Your task to perform on an android device: turn off smart reply in the gmail app Image 0: 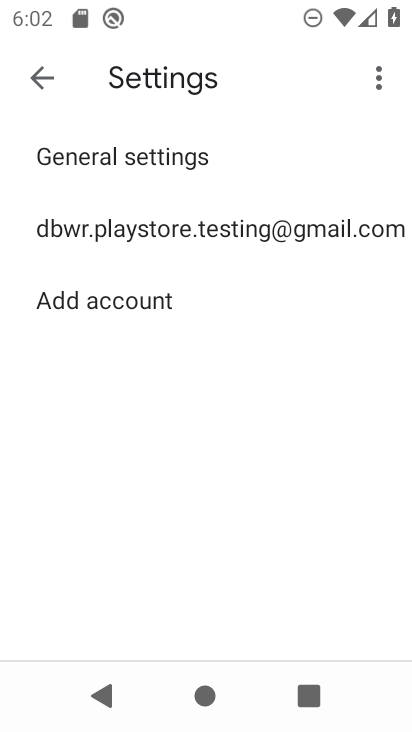
Step 0: press home button
Your task to perform on an android device: turn off smart reply in the gmail app Image 1: 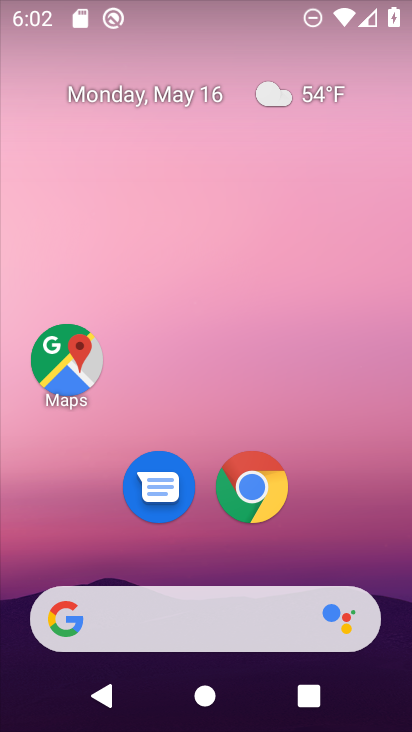
Step 1: drag from (224, 584) to (224, 313)
Your task to perform on an android device: turn off smart reply in the gmail app Image 2: 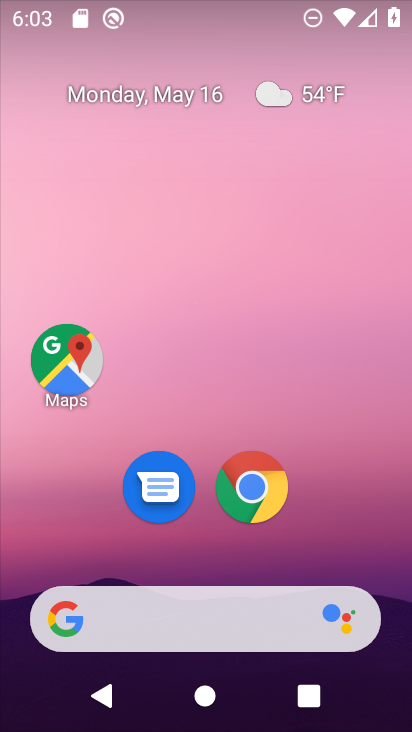
Step 2: drag from (222, 586) to (222, 192)
Your task to perform on an android device: turn off smart reply in the gmail app Image 3: 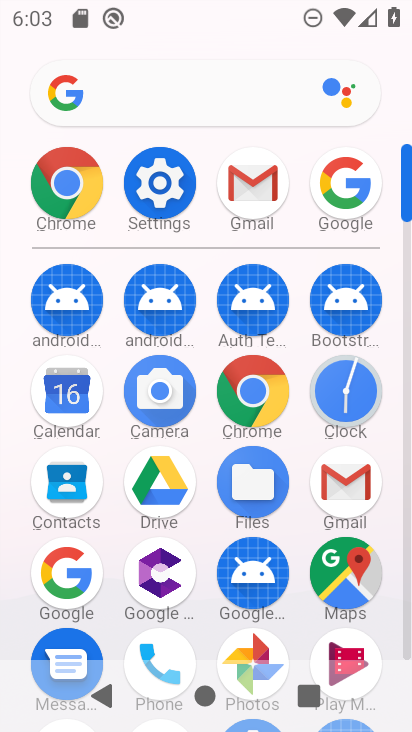
Step 3: click (267, 191)
Your task to perform on an android device: turn off smart reply in the gmail app Image 4: 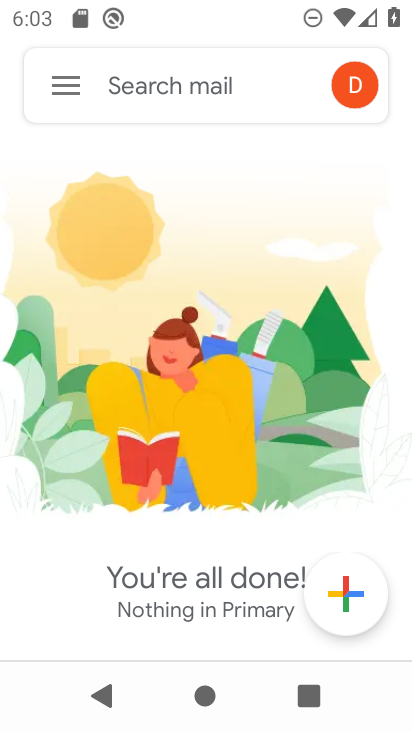
Step 4: click (56, 90)
Your task to perform on an android device: turn off smart reply in the gmail app Image 5: 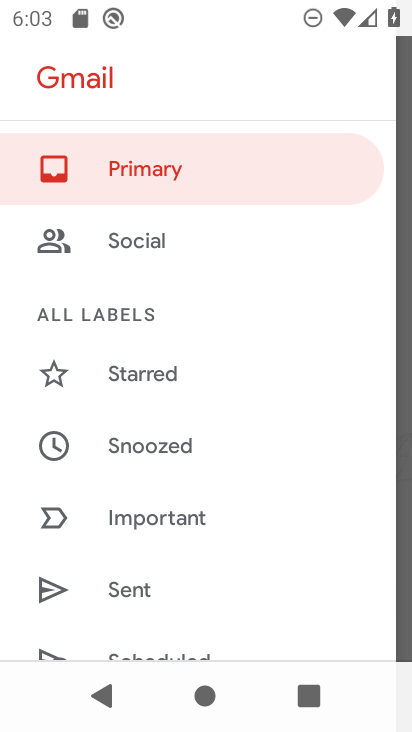
Step 5: drag from (154, 653) to (142, 317)
Your task to perform on an android device: turn off smart reply in the gmail app Image 6: 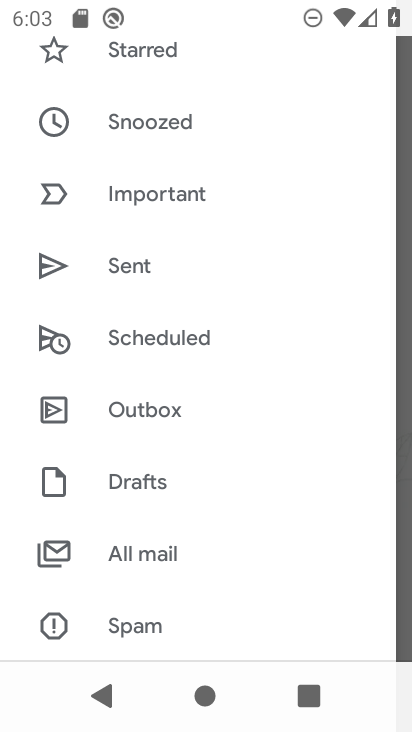
Step 6: drag from (173, 630) to (145, 307)
Your task to perform on an android device: turn off smart reply in the gmail app Image 7: 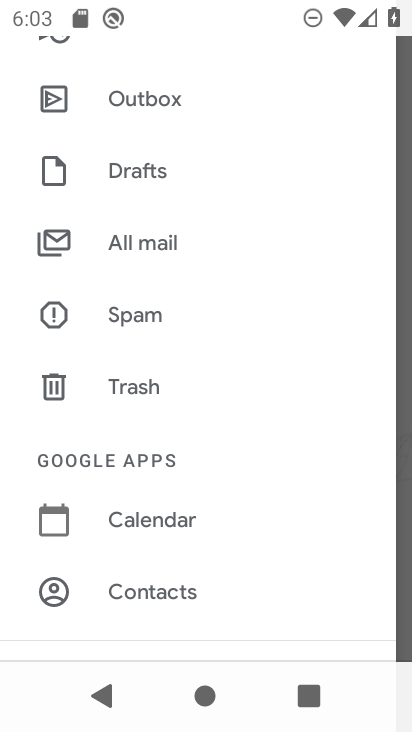
Step 7: drag from (193, 630) to (195, 321)
Your task to perform on an android device: turn off smart reply in the gmail app Image 8: 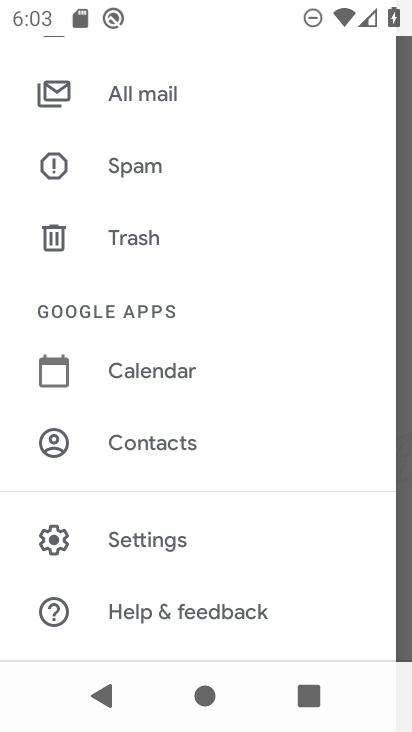
Step 8: click (156, 543)
Your task to perform on an android device: turn off smart reply in the gmail app Image 9: 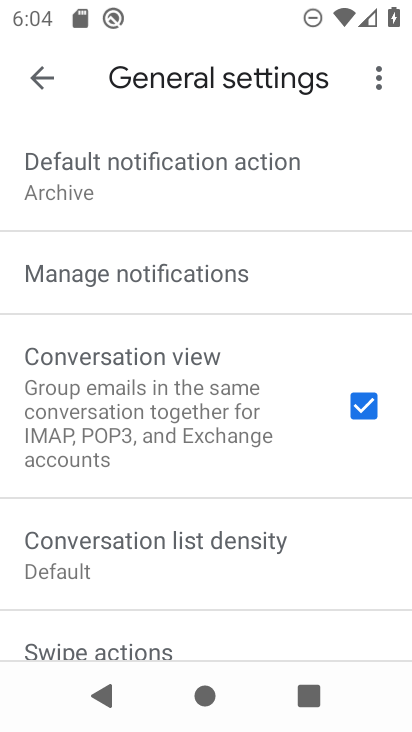
Step 9: click (27, 78)
Your task to perform on an android device: turn off smart reply in the gmail app Image 10: 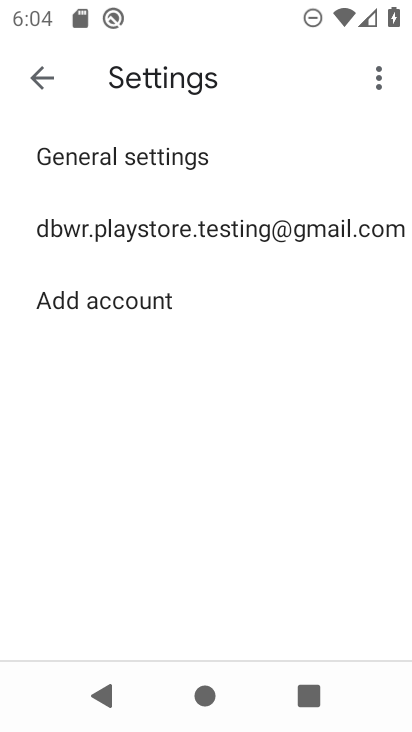
Step 10: click (142, 164)
Your task to perform on an android device: turn off smart reply in the gmail app Image 11: 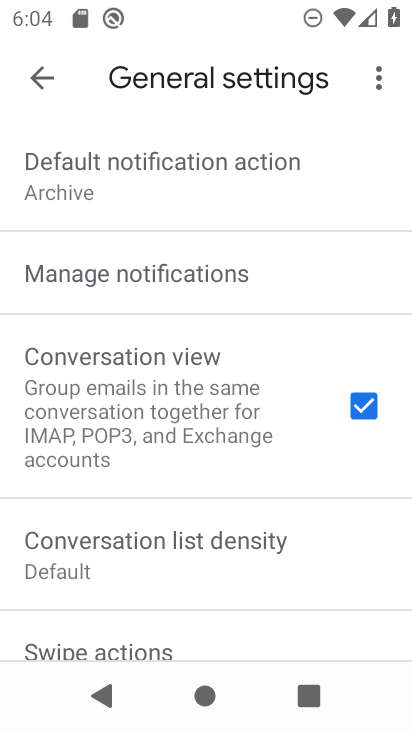
Step 11: click (123, 274)
Your task to perform on an android device: turn off smart reply in the gmail app Image 12: 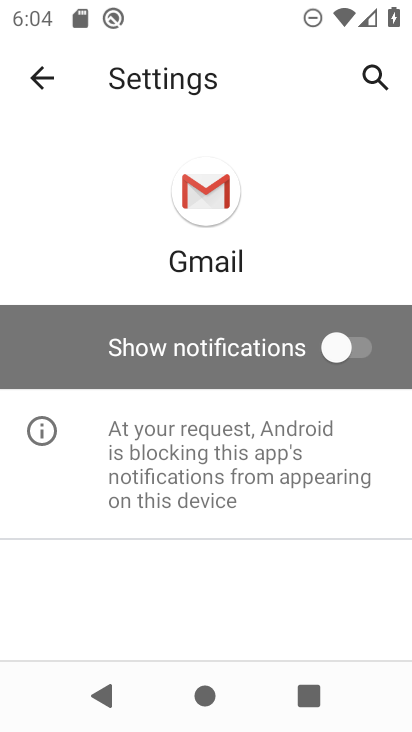
Step 12: click (47, 81)
Your task to perform on an android device: turn off smart reply in the gmail app Image 13: 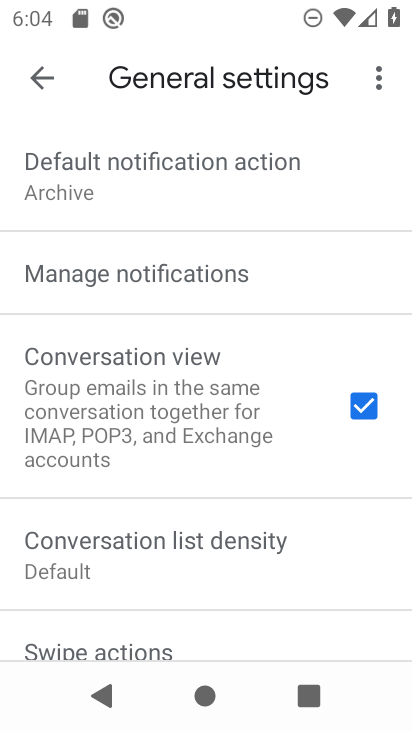
Step 13: click (39, 81)
Your task to perform on an android device: turn off smart reply in the gmail app Image 14: 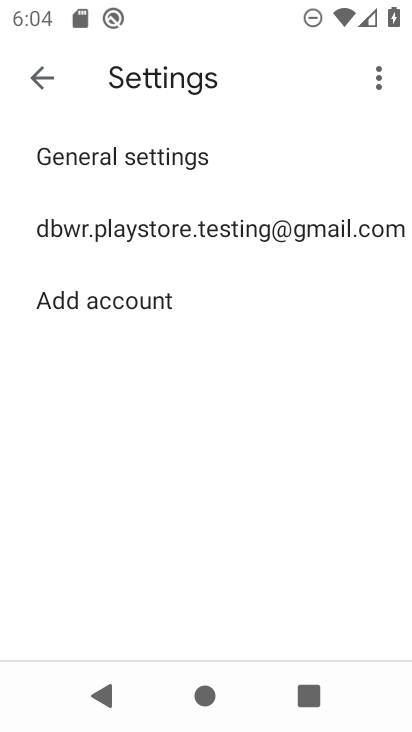
Step 14: click (214, 227)
Your task to perform on an android device: turn off smart reply in the gmail app Image 15: 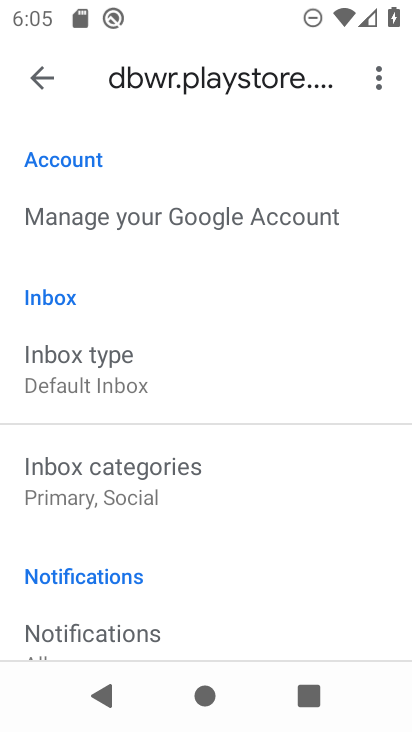
Step 15: click (74, 379)
Your task to perform on an android device: turn off smart reply in the gmail app Image 16: 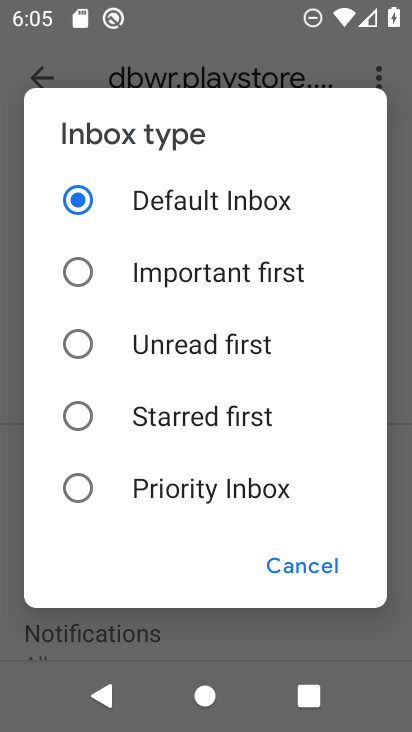
Step 16: click (305, 564)
Your task to perform on an android device: turn off smart reply in the gmail app Image 17: 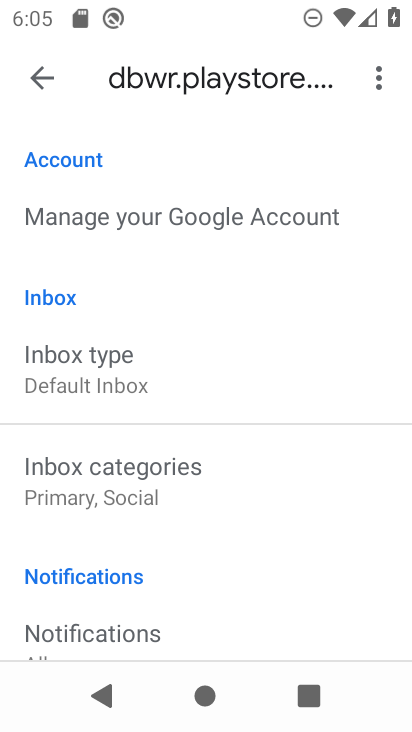
Step 17: drag from (162, 623) to (160, 348)
Your task to perform on an android device: turn off smart reply in the gmail app Image 18: 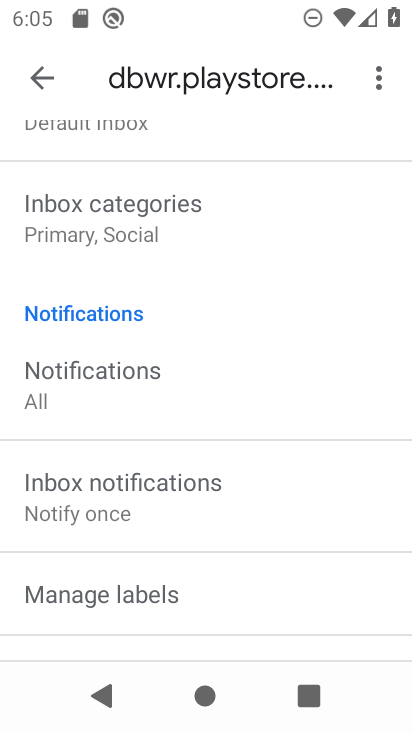
Step 18: drag from (199, 604) to (206, 404)
Your task to perform on an android device: turn off smart reply in the gmail app Image 19: 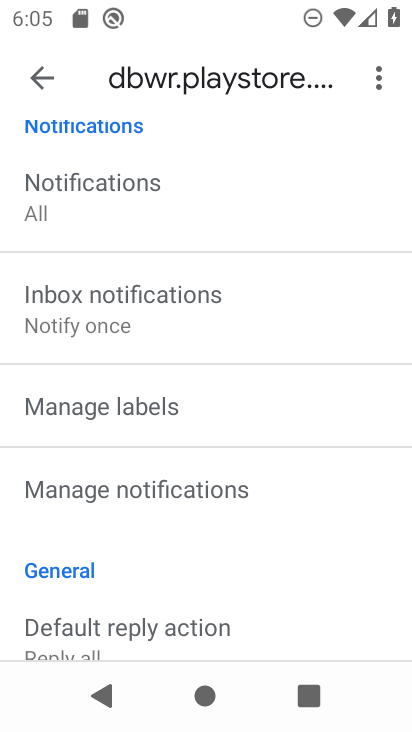
Step 19: drag from (178, 635) to (178, 392)
Your task to perform on an android device: turn off smart reply in the gmail app Image 20: 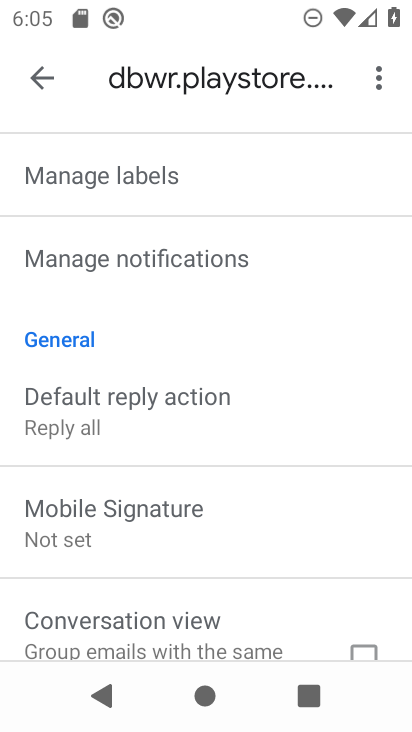
Step 20: drag from (153, 655) to (141, 360)
Your task to perform on an android device: turn off smart reply in the gmail app Image 21: 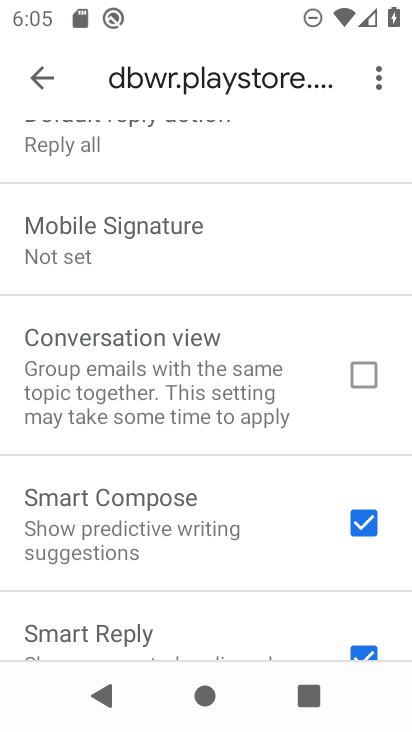
Step 21: drag from (156, 619) to (171, 380)
Your task to perform on an android device: turn off smart reply in the gmail app Image 22: 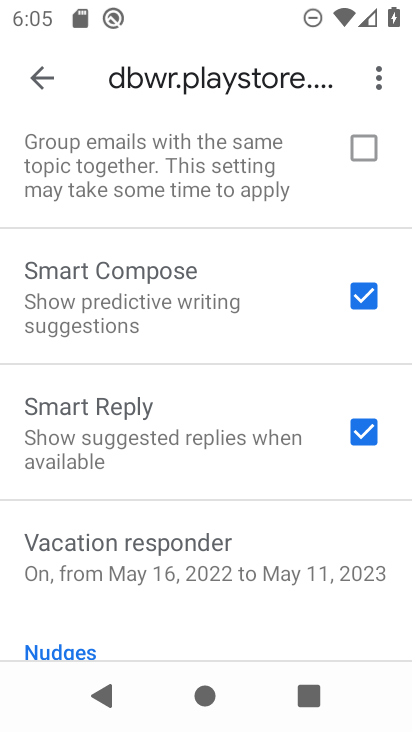
Step 22: click (367, 437)
Your task to perform on an android device: turn off smart reply in the gmail app Image 23: 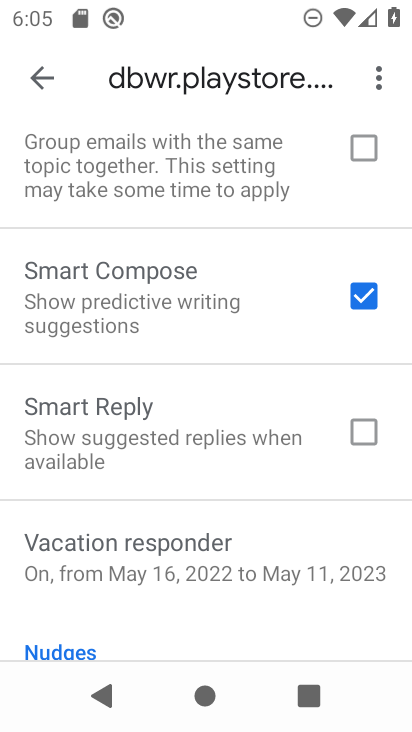
Step 23: task complete